Your task to perform on an android device: Open Maps and search for coffee Image 0: 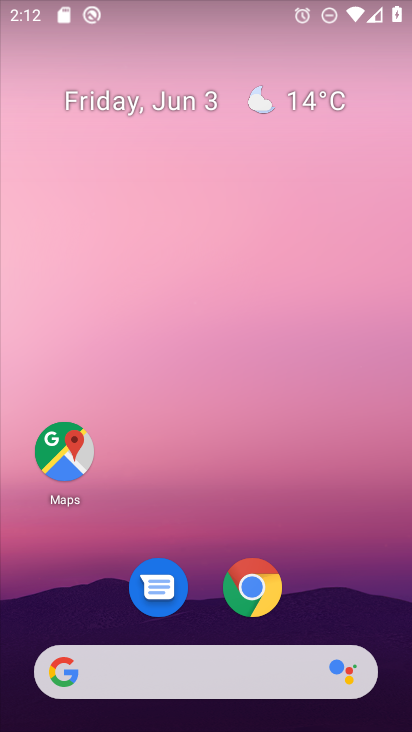
Step 0: click (66, 462)
Your task to perform on an android device: Open Maps and search for coffee Image 1: 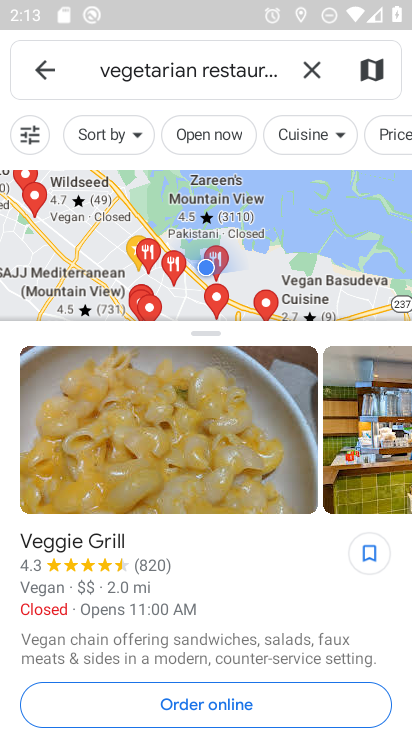
Step 1: click (304, 73)
Your task to perform on an android device: Open Maps and search for coffee Image 2: 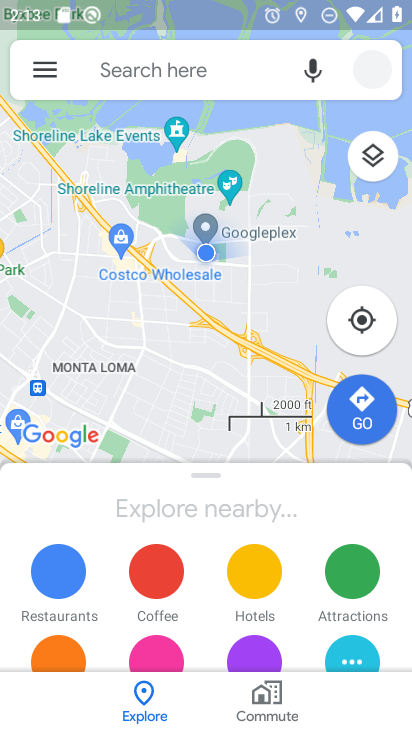
Step 2: click (133, 78)
Your task to perform on an android device: Open Maps and search for coffee Image 3: 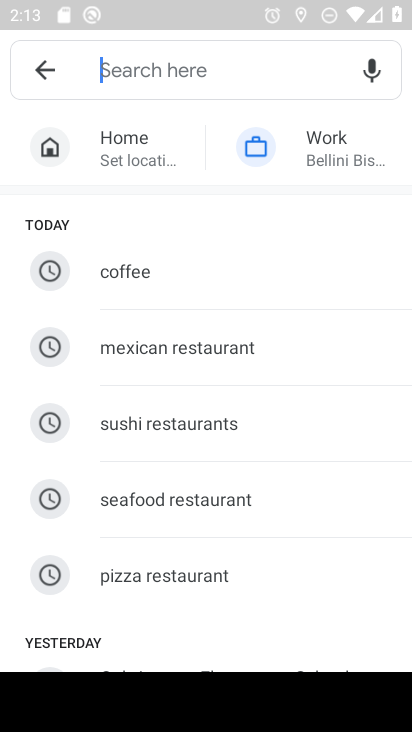
Step 3: type "coffee"
Your task to perform on an android device: Open Maps and search for coffee Image 4: 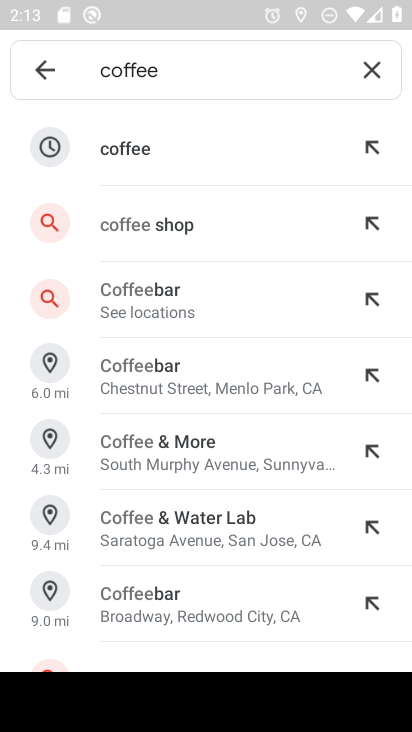
Step 4: click (142, 153)
Your task to perform on an android device: Open Maps and search for coffee Image 5: 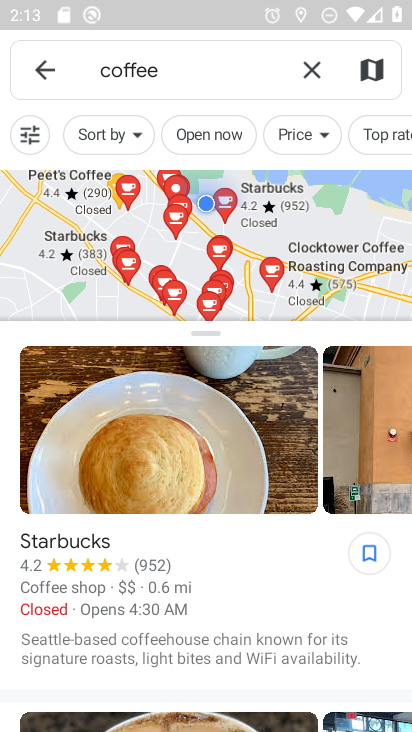
Step 5: task complete